Your task to perform on an android device: Open wifi settings Image 0: 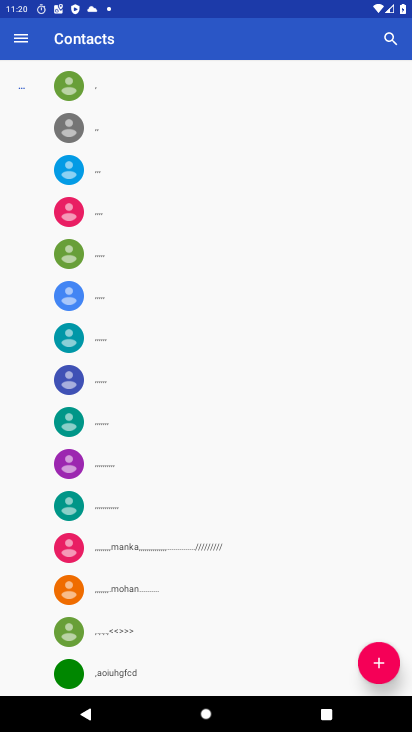
Step 0: press back button
Your task to perform on an android device: Open wifi settings Image 1: 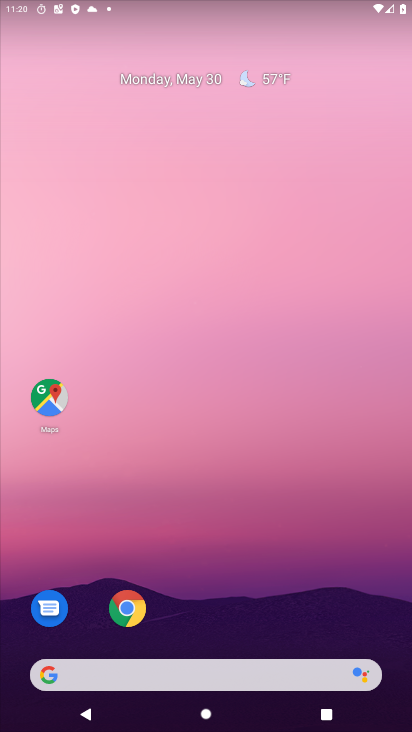
Step 1: drag from (285, 610) to (184, 16)
Your task to perform on an android device: Open wifi settings Image 2: 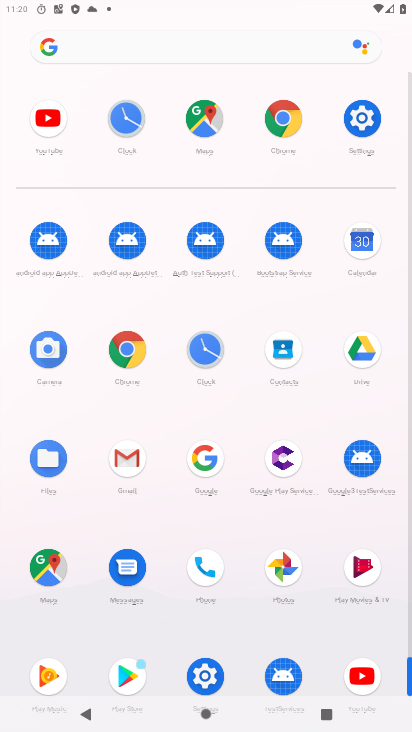
Step 2: click (204, 672)
Your task to perform on an android device: Open wifi settings Image 3: 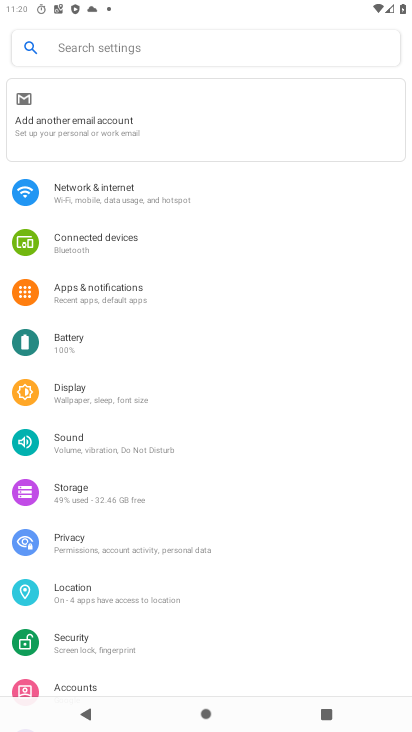
Step 3: click (145, 193)
Your task to perform on an android device: Open wifi settings Image 4: 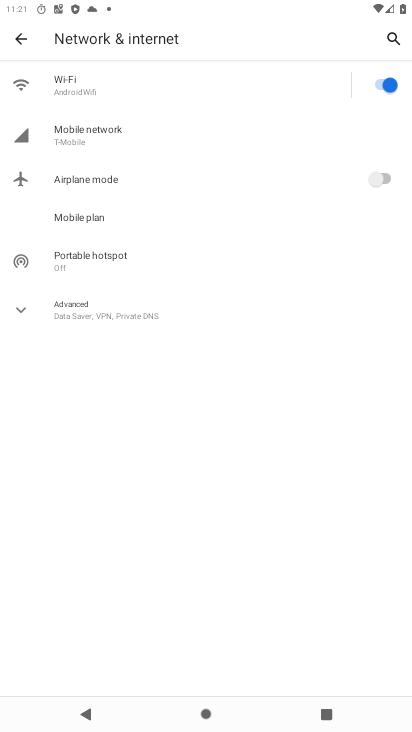
Step 4: click (24, 300)
Your task to perform on an android device: Open wifi settings Image 5: 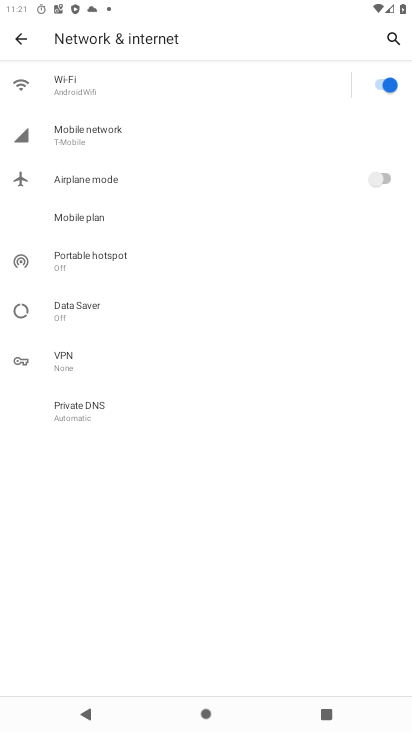
Step 5: click (117, 84)
Your task to perform on an android device: Open wifi settings Image 6: 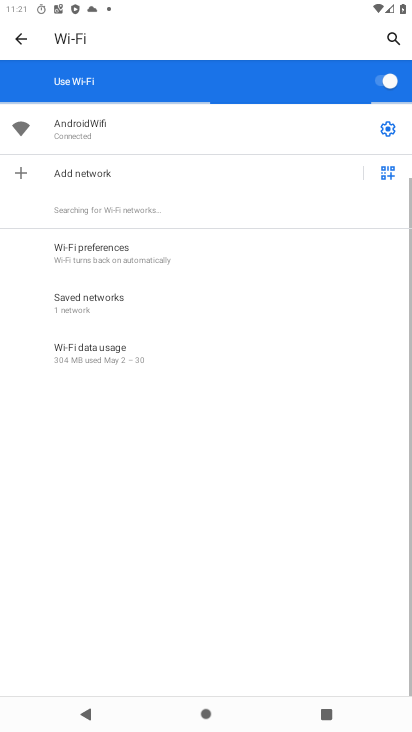
Step 6: task complete